Your task to perform on an android device: create a new album in the google photos Image 0: 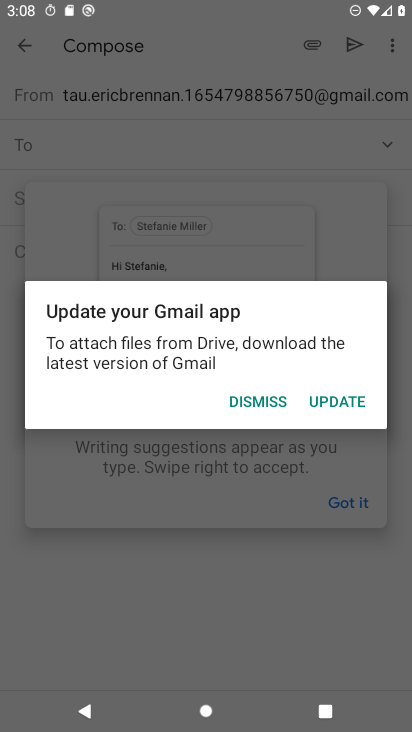
Step 0: press home button
Your task to perform on an android device: create a new album in the google photos Image 1: 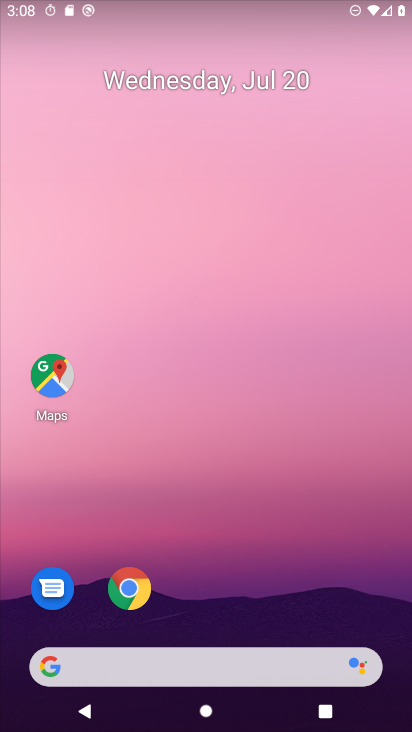
Step 1: drag from (197, 635) to (121, 107)
Your task to perform on an android device: create a new album in the google photos Image 2: 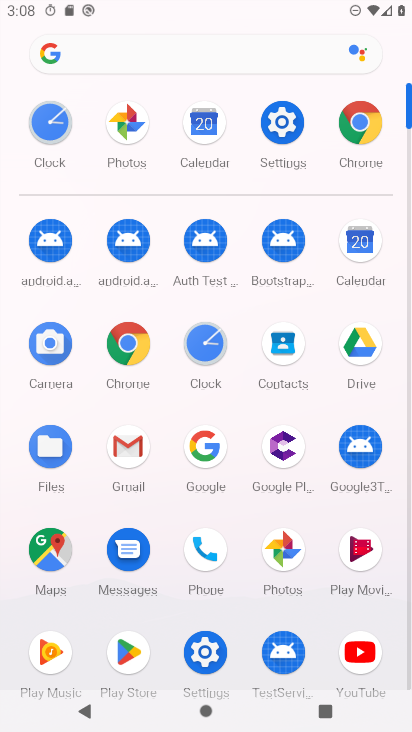
Step 2: click (296, 556)
Your task to perform on an android device: create a new album in the google photos Image 3: 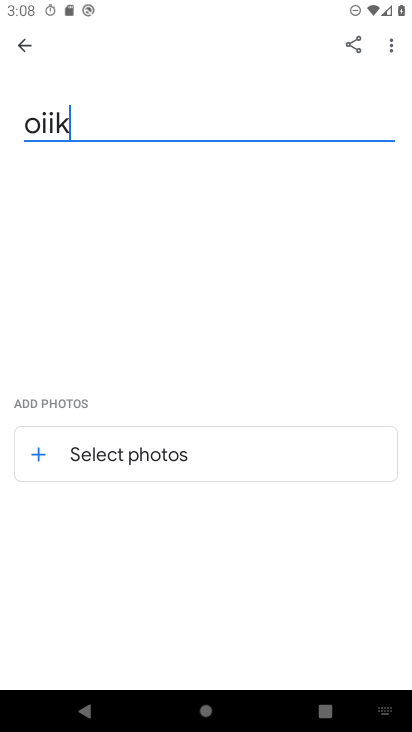
Step 3: click (389, 34)
Your task to perform on an android device: create a new album in the google photos Image 4: 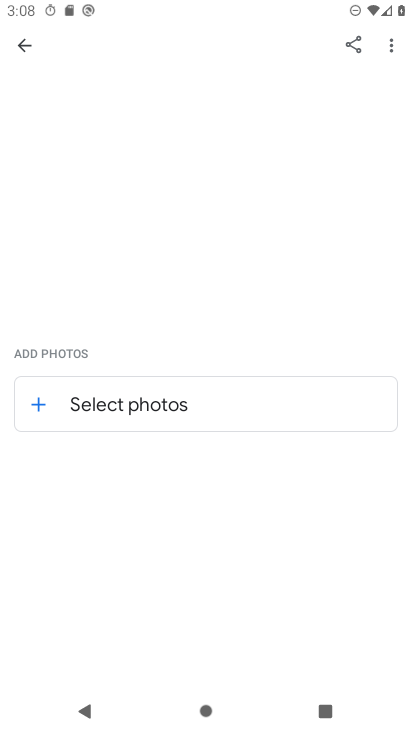
Step 4: task complete